Your task to perform on an android device: Is it going to rain tomorrow? Image 0: 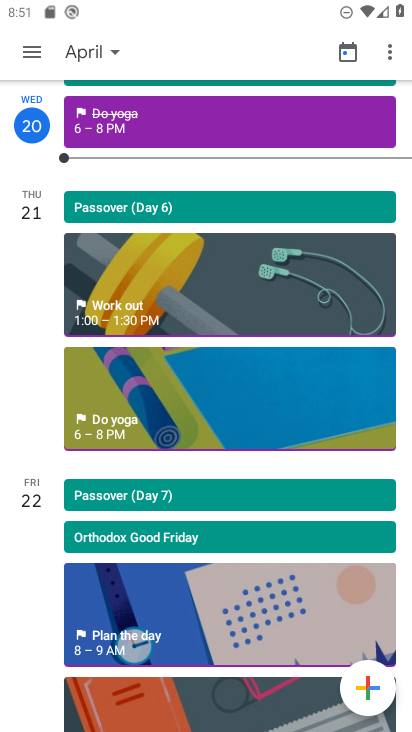
Step 0: press home button
Your task to perform on an android device: Is it going to rain tomorrow? Image 1: 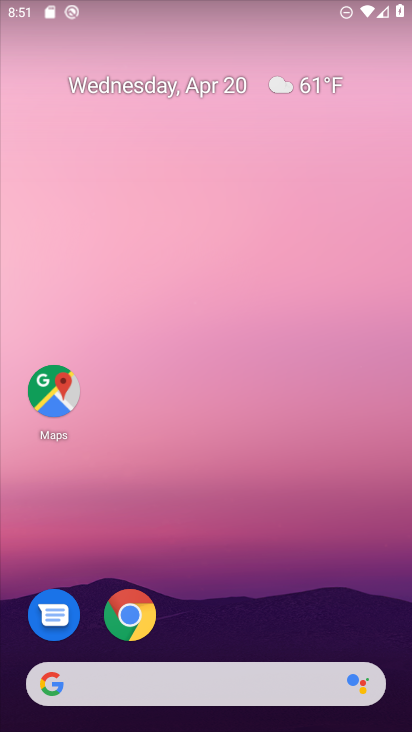
Step 1: drag from (224, 610) to (315, 253)
Your task to perform on an android device: Is it going to rain tomorrow? Image 2: 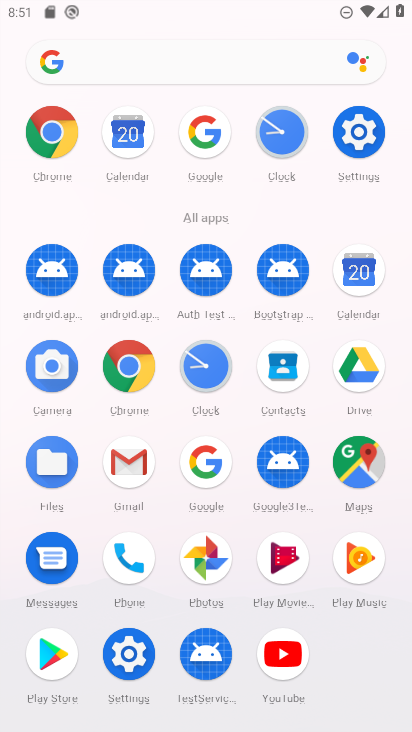
Step 2: click (132, 362)
Your task to perform on an android device: Is it going to rain tomorrow? Image 3: 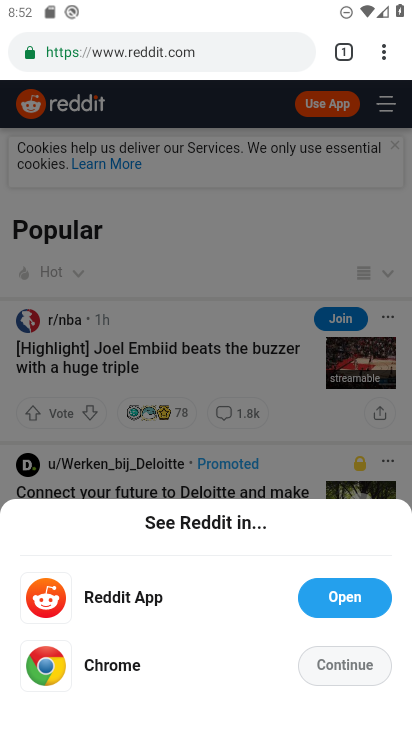
Step 3: click (385, 51)
Your task to perform on an android device: Is it going to rain tomorrow? Image 4: 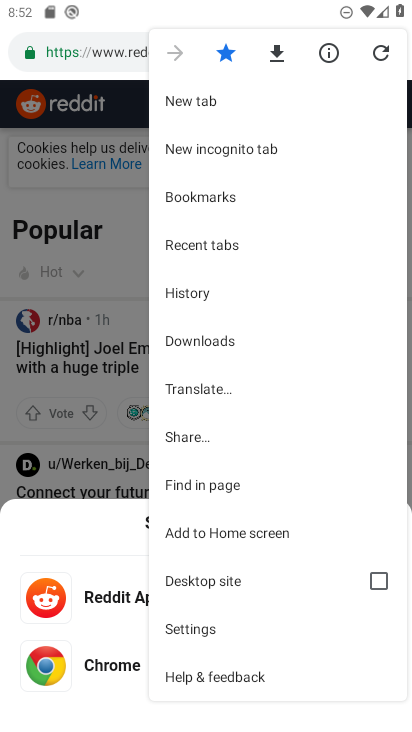
Step 4: click (250, 93)
Your task to perform on an android device: Is it going to rain tomorrow? Image 5: 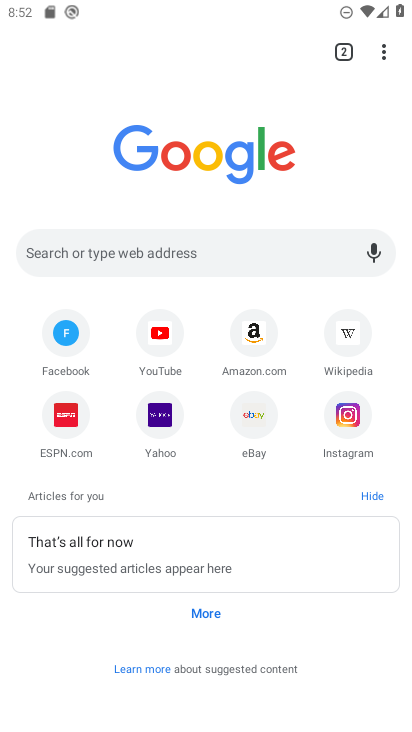
Step 5: click (204, 239)
Your task to perform on an android device: Is it going to rain tomorrow? Image 6: 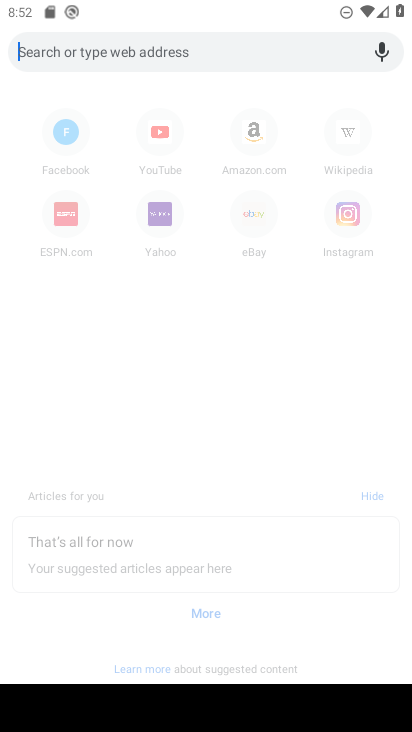
Step 6: type "Is it going to rain tomorrow?"
Your task to perform on an android device: Is it going to rain tomorrow? Image 7: 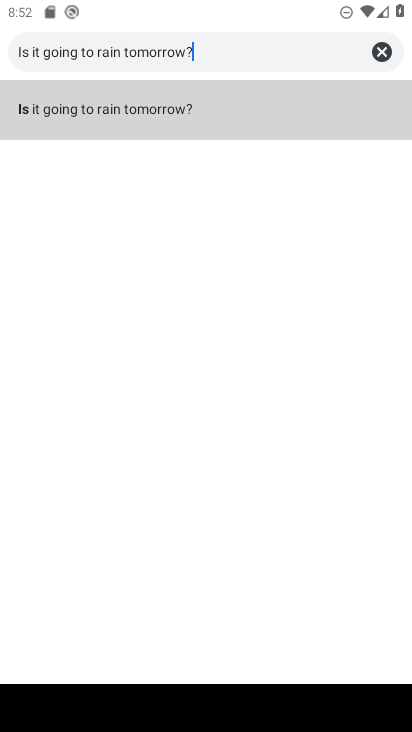
Step 7: click (190, 107)
Your task to perform on an android device: Is it going to rain tomorrow? Image 8: 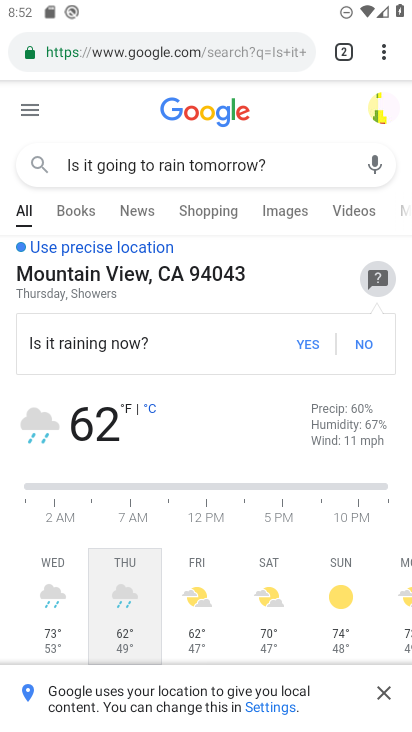
Step 8: task complete